Your task to perform on an android device: What's on my calendar tomorrow? Image 0: 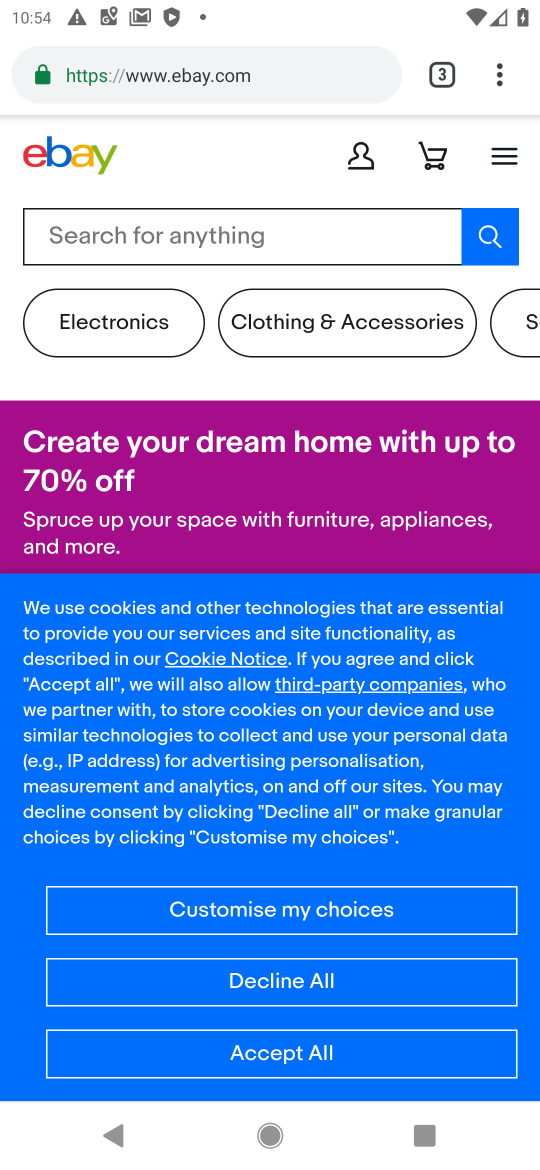
Step 0: click (230, 1157)
Your task to perform on an android device: What's on my calendar tomorrow? Image 1: 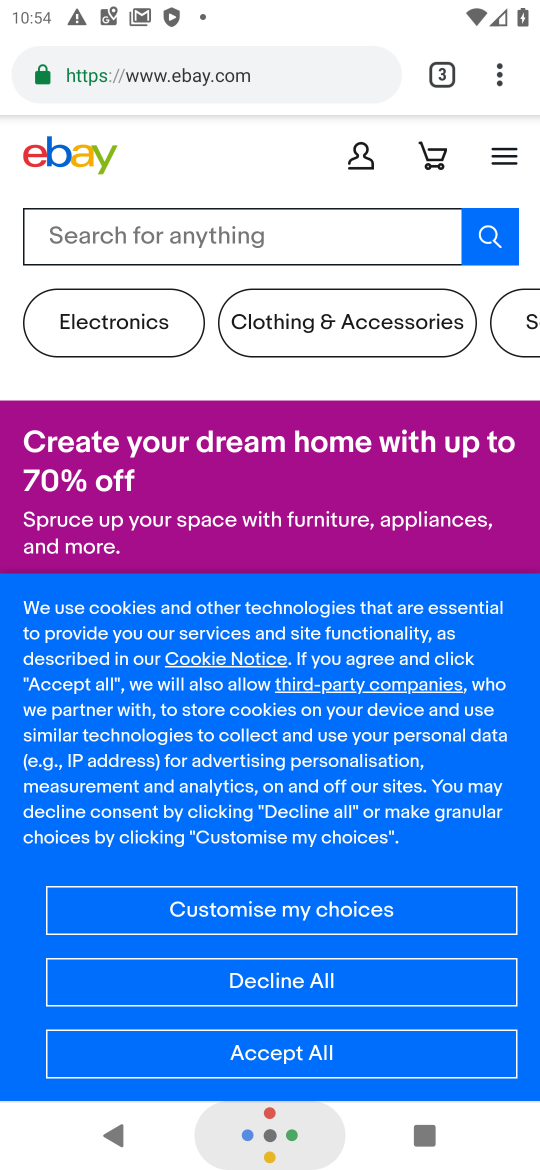
Step 1: click (230, 1157)
Your task to perform on an android device: What's on my calendar tomorrow? Image 2: 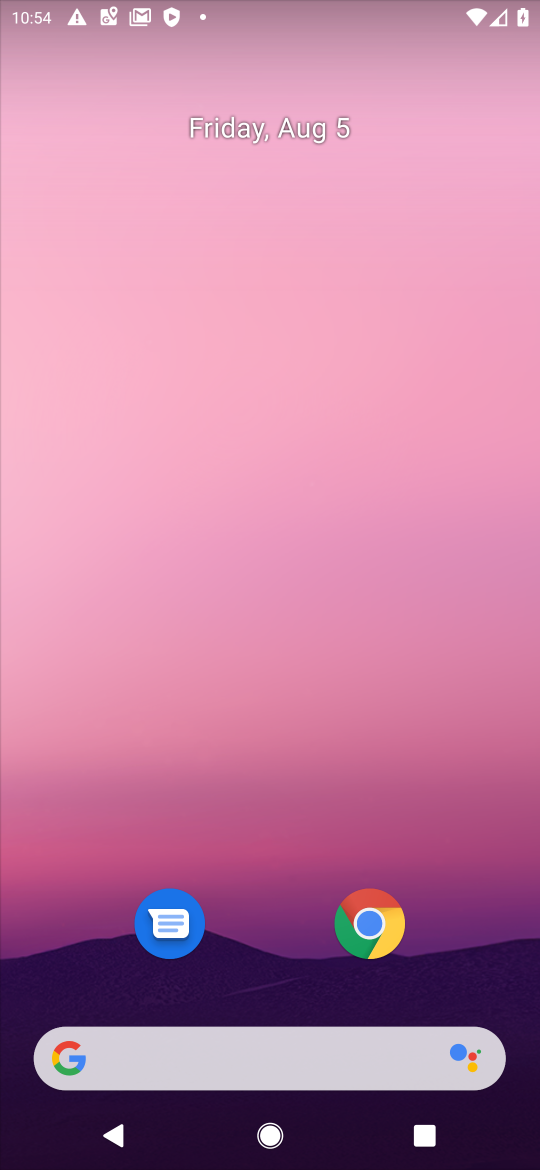
Step 2: press home button
Your task to perform on an android device: What's on my calendar tomorrow? Image 3: 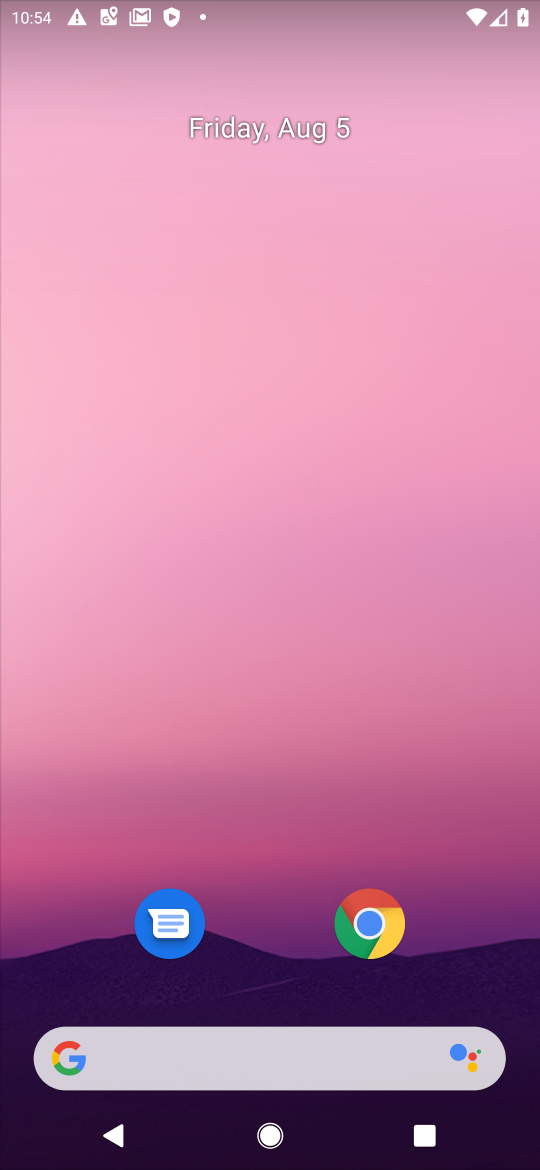
Step 3: drag from (286, 1064) to (347, 2)
Your task to perform on an android device: What's on my calendar tomorrow? Image 4: 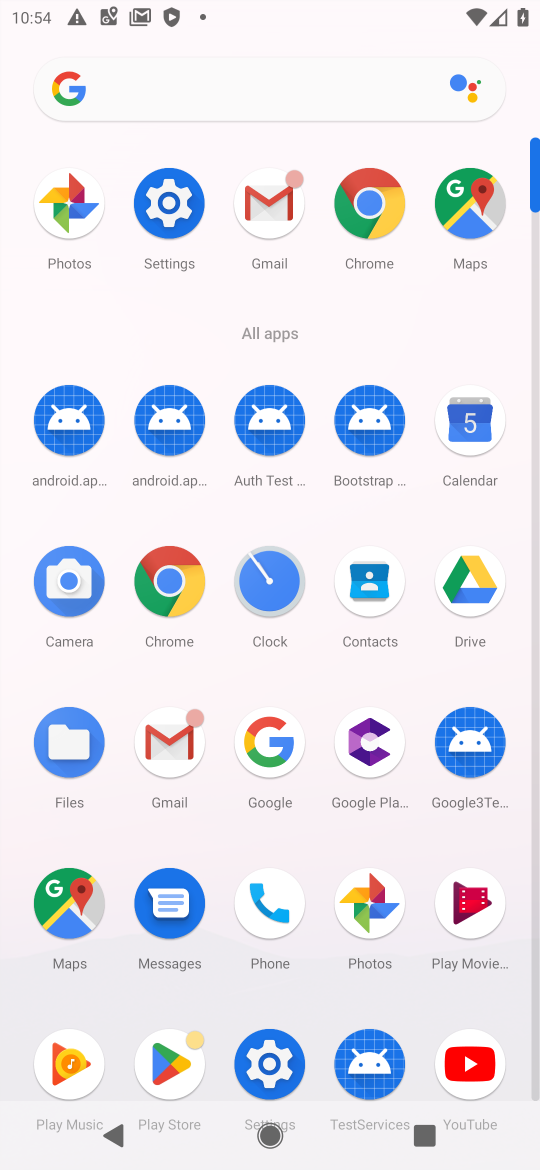
Step 4: click (459, 437)
Your task to perform on an android device: What's on my calendar tomorrow? Image 5: 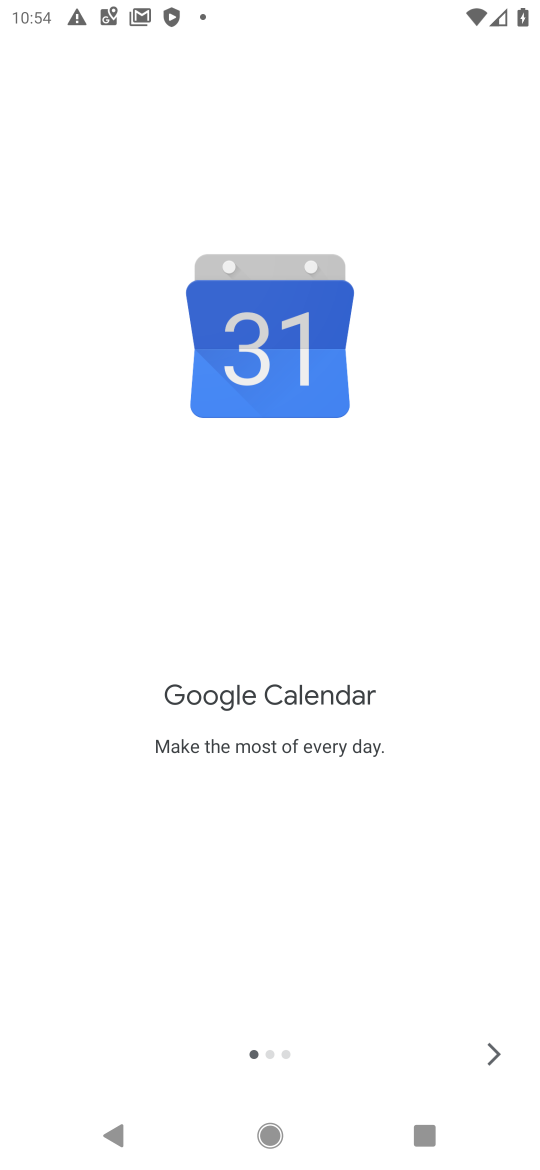
Step 5: click (491, 1038)
Your task to perform on an android device: What's on my calendar tomorrow? Image 6: 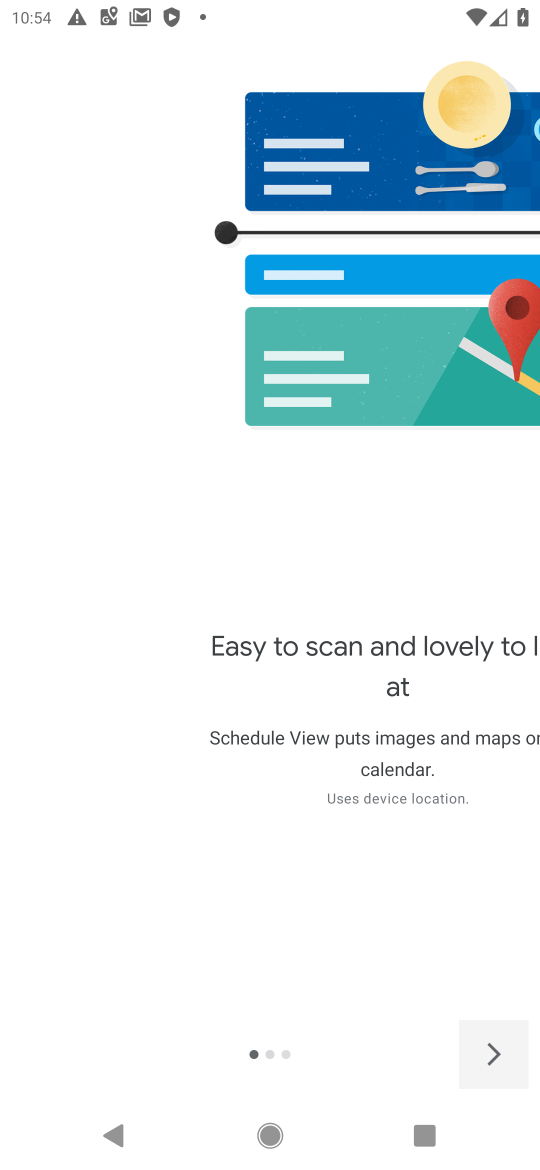
Step 6: click (491, 1038)
Your task to perform on an android device: What's on my calendar tomorrow? Image 7: 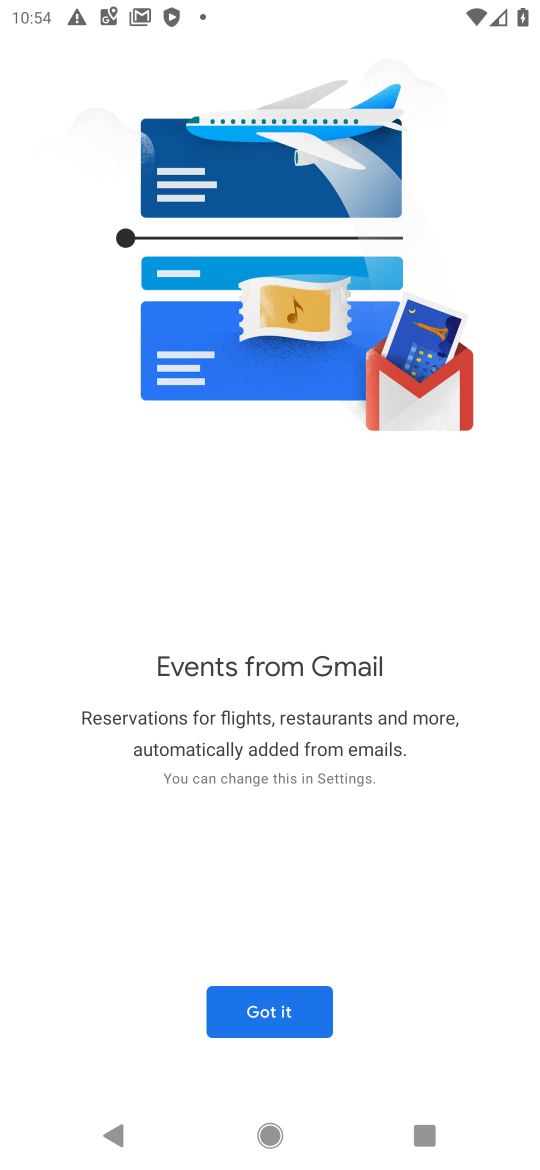
Step 7: click (280, 1008)
Your task to perform on an android device: What's on my calendar tomorrow? Image 8: 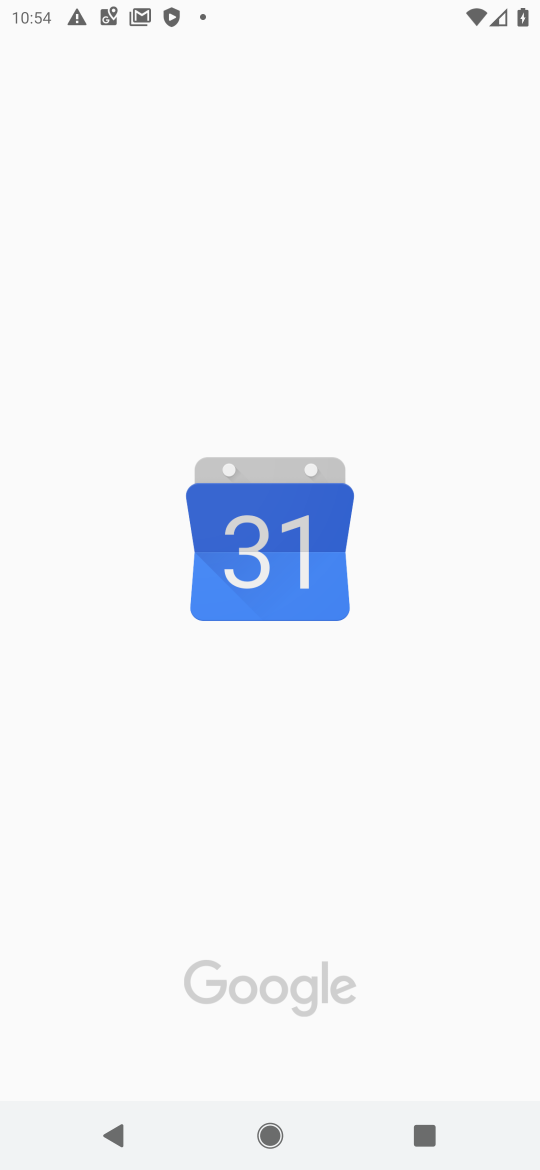
Step 8: click (280, 1008)
Your task to perform on an android device: What's on my calendar tomorrow? Image 9: 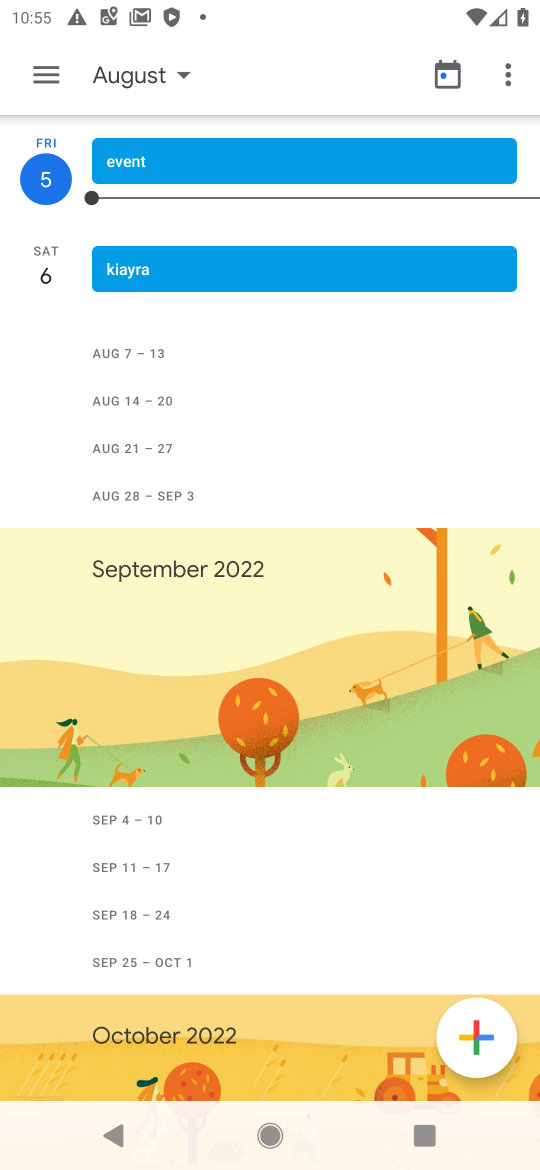
Step 9: task complete